Your task to perform on an android device: Go to internet settings Image 0: 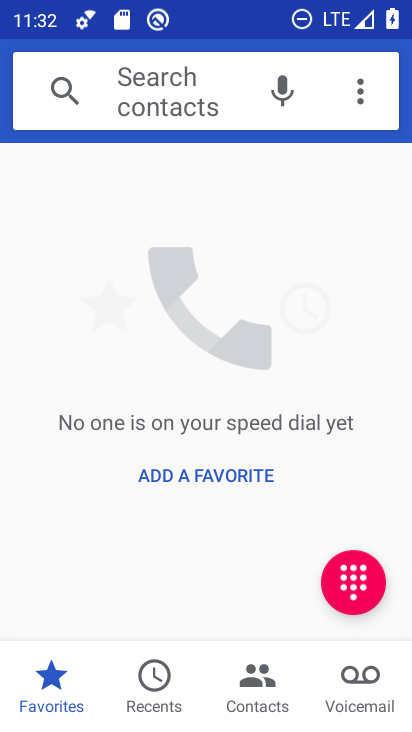
Step 0: press home button
Your task to perform on an android device: Go to internet settings Image 1: 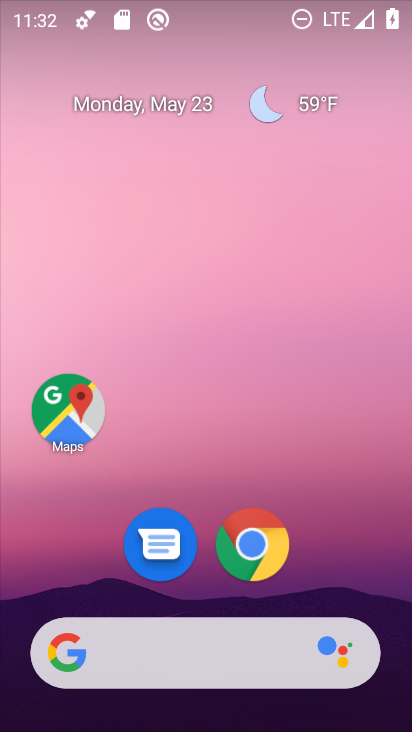
Step 1: drag from (386, 614) to (360, 7)
Your task to perform on an android device: Go to internet settings Image 2: 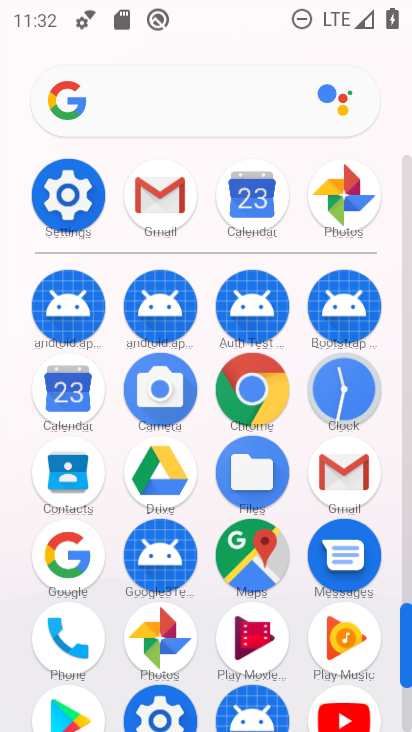
Step 2: click (408, 717)
Your task to perform on an android device: Go to internet settings Image 3: 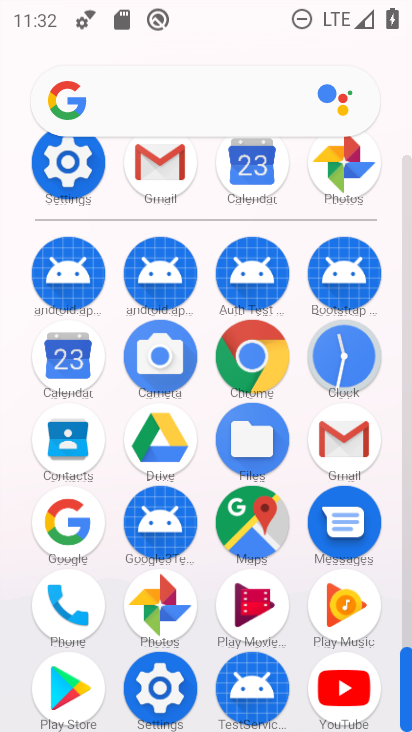
Step 3: click (161, 690)
Your task to perform on an android device: Go to internet settings Image 4: 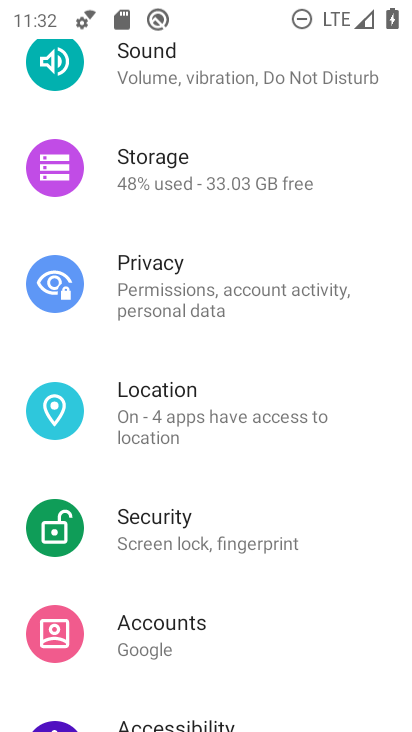
Step 4: drag from (297, 200) to (229, 618)
Your task to perform on an android device: Go to internet settings Image 5: 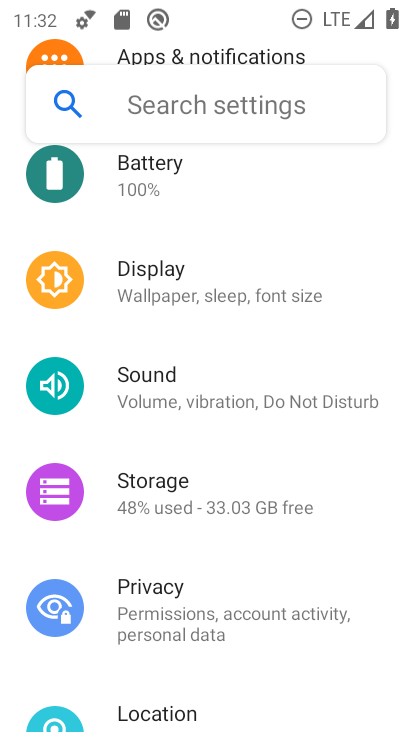
Step 5: drag from (310, 242) to (271, 555)
Your task to perform on an android device: Go to internet settings Image 6: 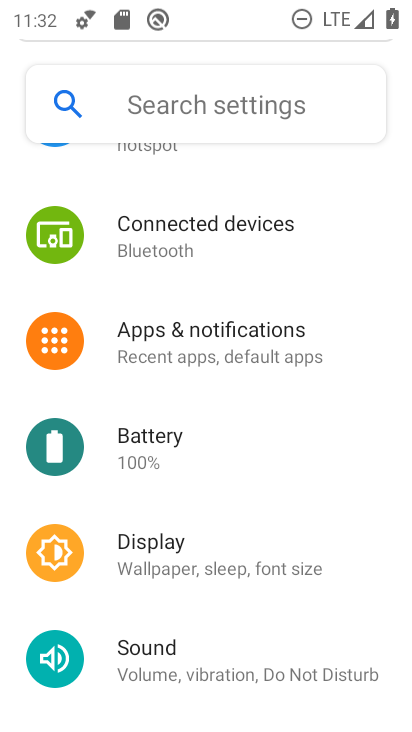
Step 6: drag from (320, 304) to (289, 536)
Your task to perform on an android device: Go to internet settings Image 7: 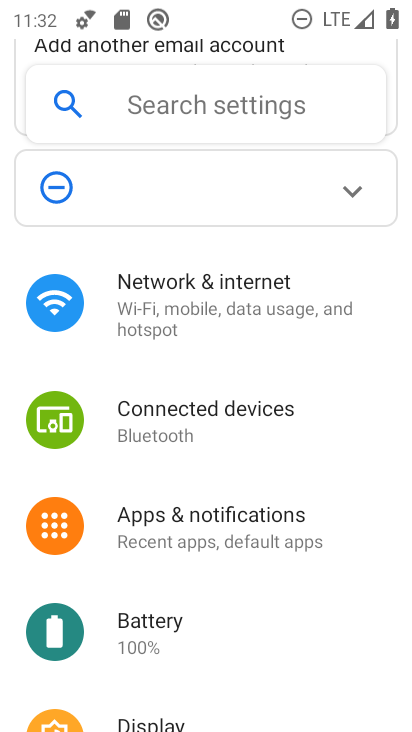
Step 7: click (178, 295)
Your task to perform on an android device: Go to internet settings Image 8: 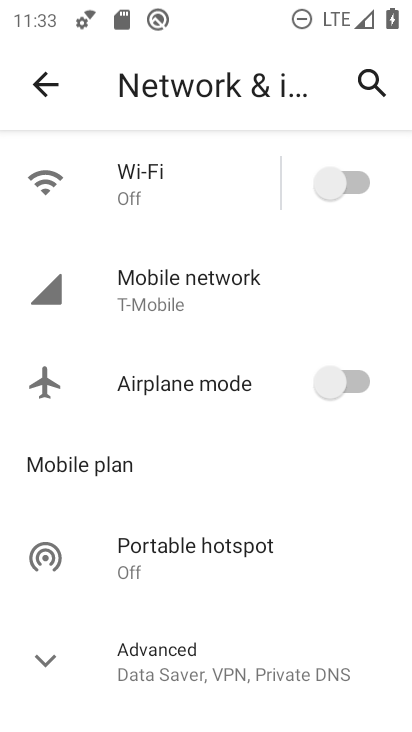
Step 8: click (44, 647)
Your task to perform on an android device: Go to internet settings Image 9: 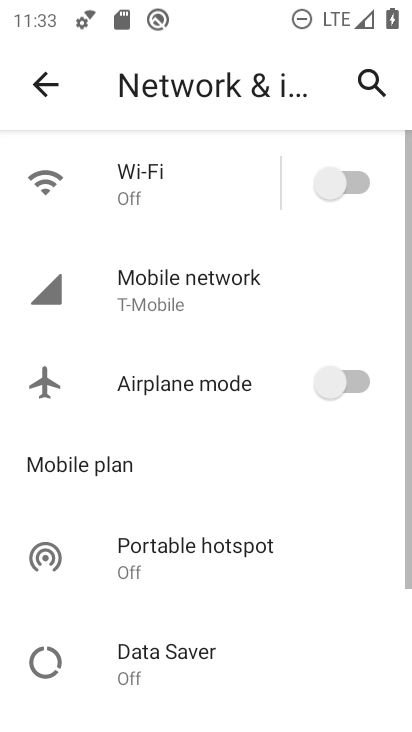
Step 9: task complete